Your task to perform on an android device: Search for the new Steph Curry shoes on Nike.com Image 0: 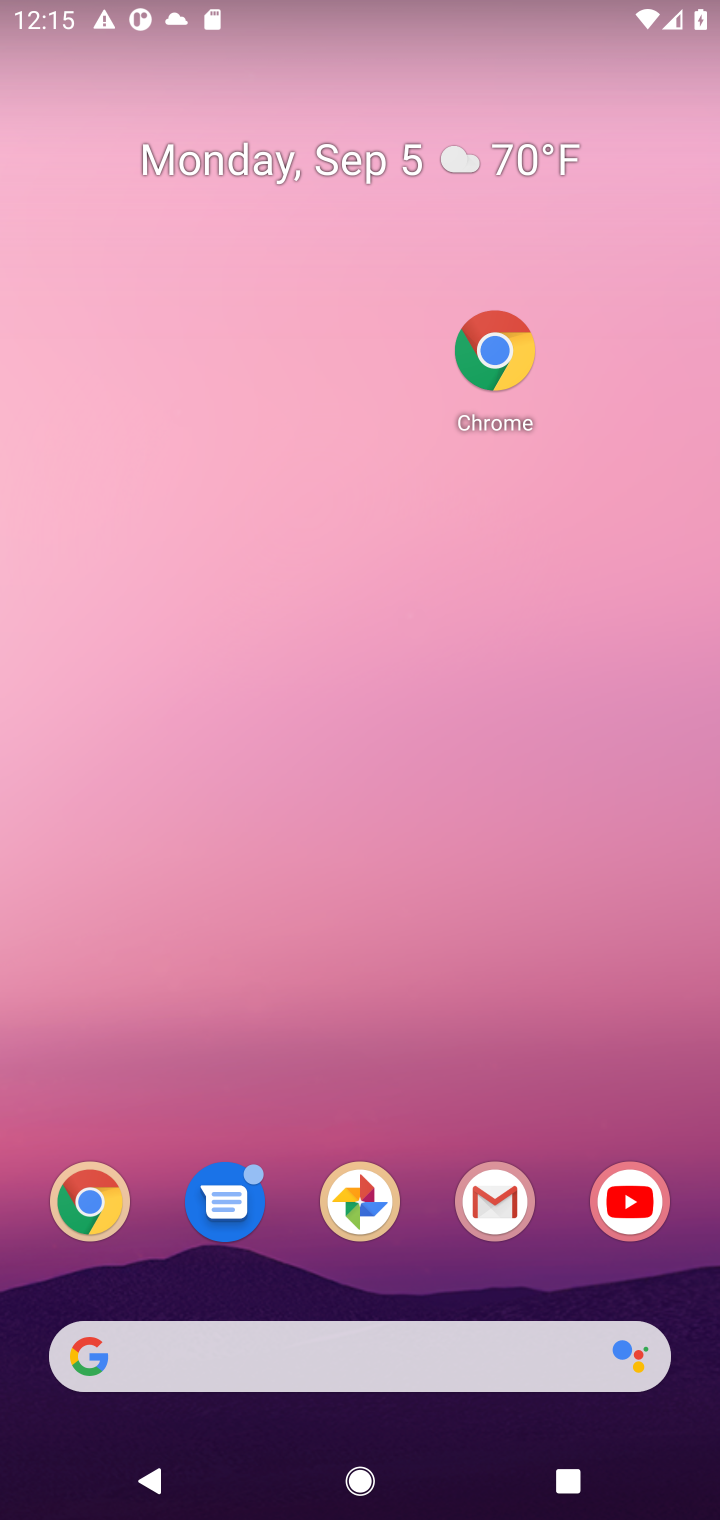
Step 0: drag from (421, 1002) to (449, 0)
Your task to perform on an android device: Search for the new Steph Curry shoes on Nike.com Image 1: 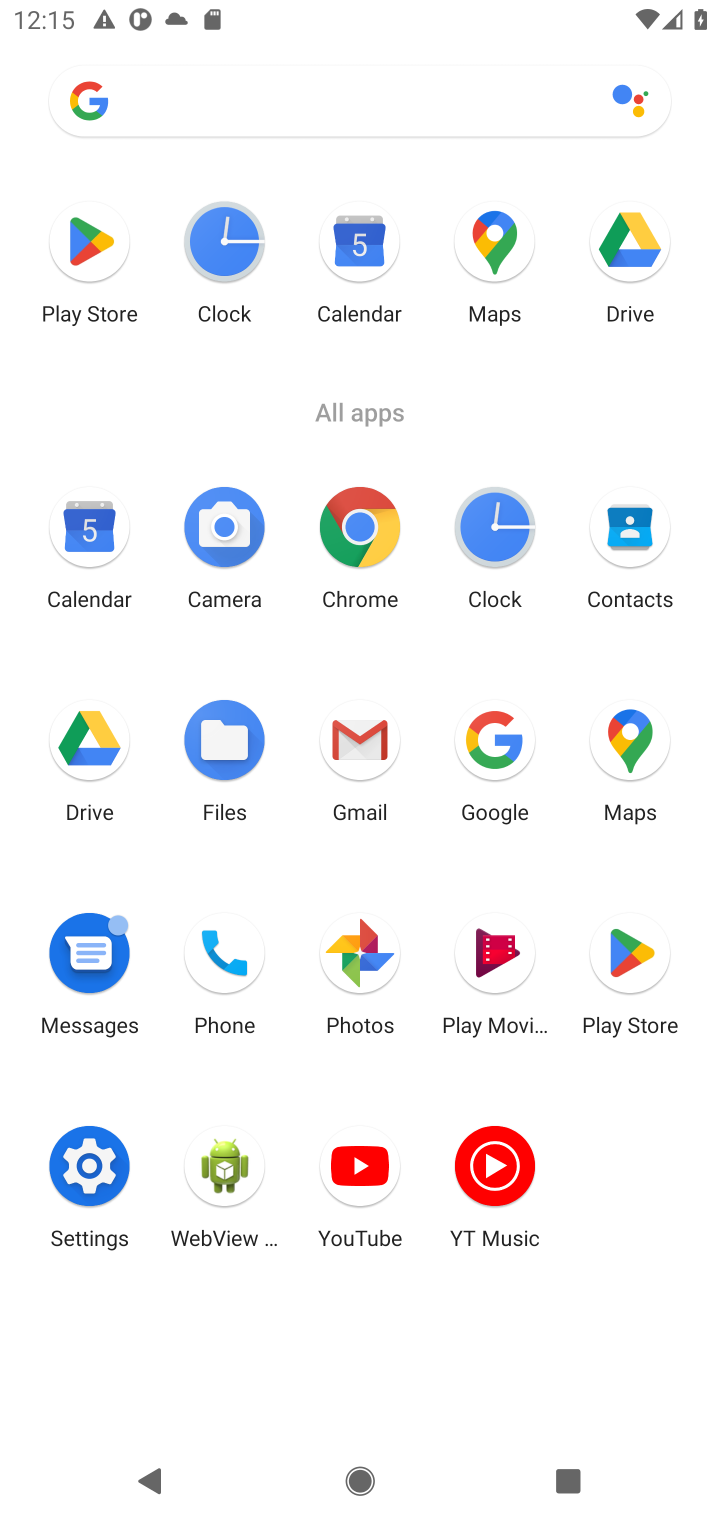
Step 1: click (356, 534)
Your task to perform on an android device: Search for the new Steph Curry shoes on Nike.com Image 2: 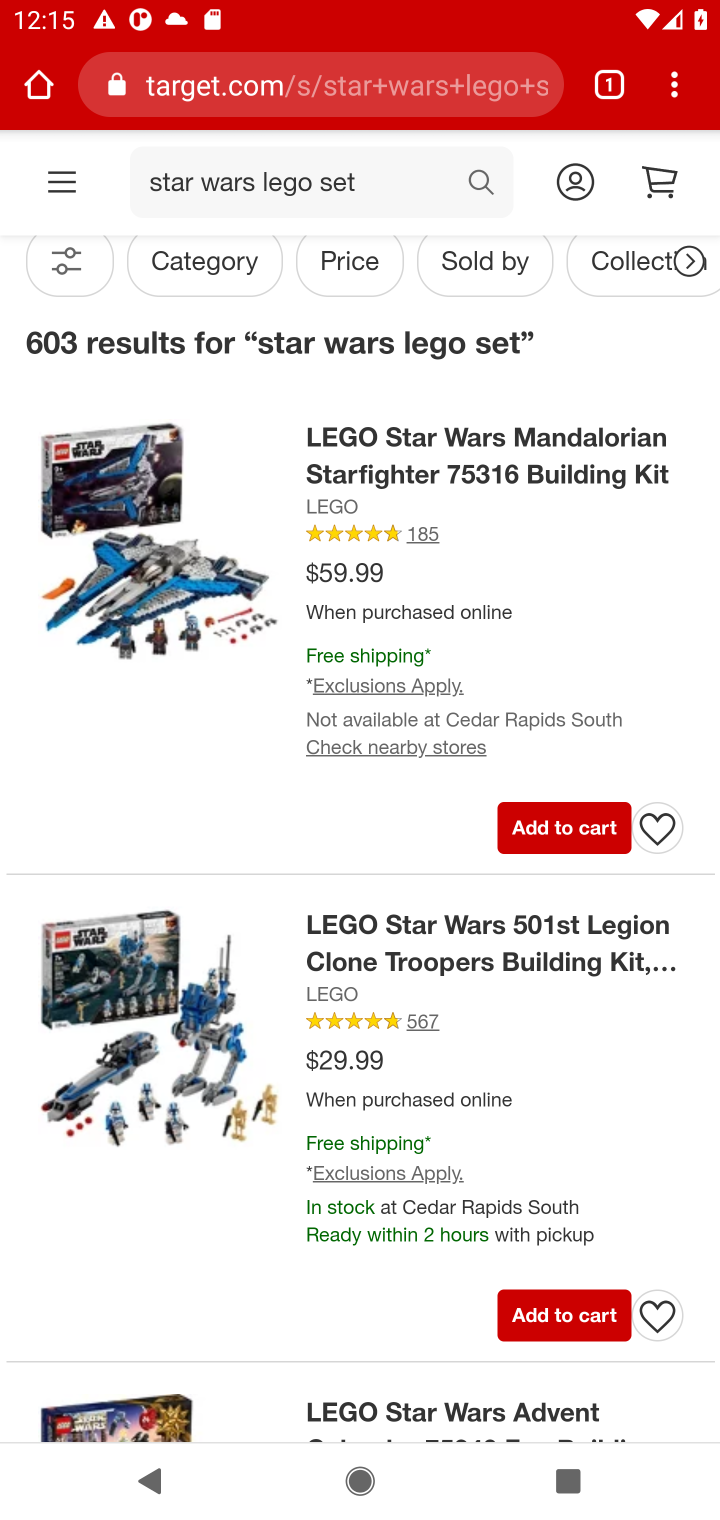
Step 2: click (377, 83)
Your task to perform on an android device: Search for the new Steph Curry shoes on Nike.com Image 3: 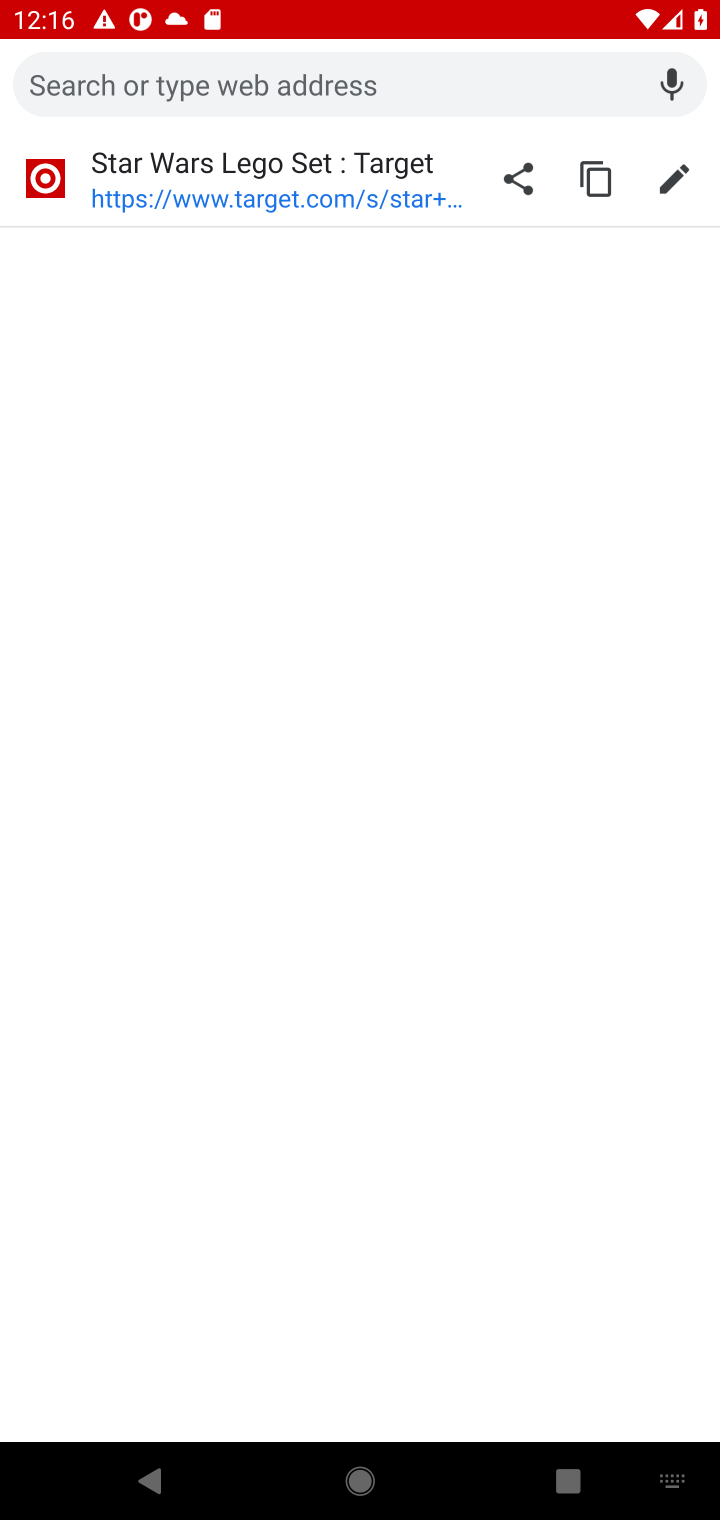
Step 3: type "new Steph Curry shoes on Nike.com"
Your task to perform on an android device: Search for the new Steph Curry shoes on Nike.com Image 4: 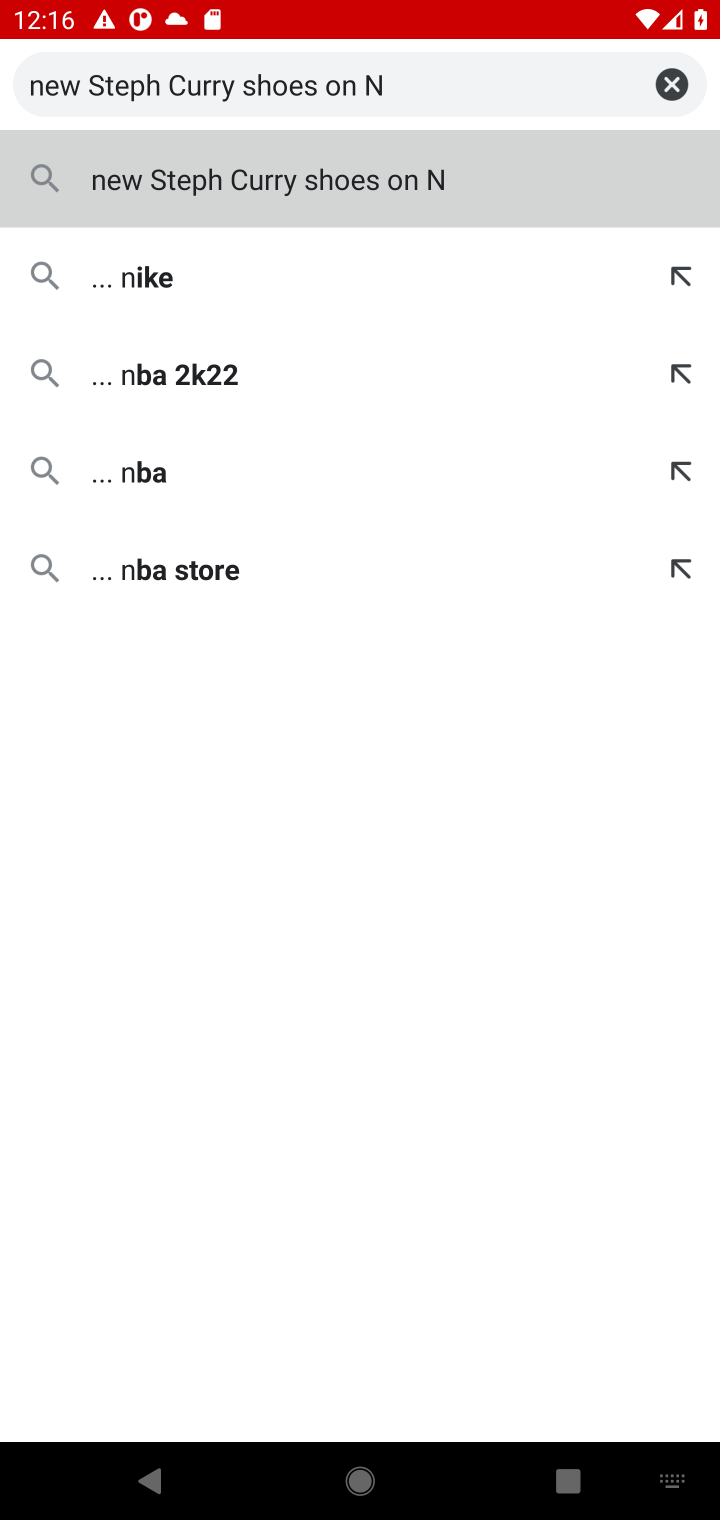
Step 4: type "ike.com"
Your task to perform on an android device: Search for the new Steph Curry shoes on Nike.com Image 5: 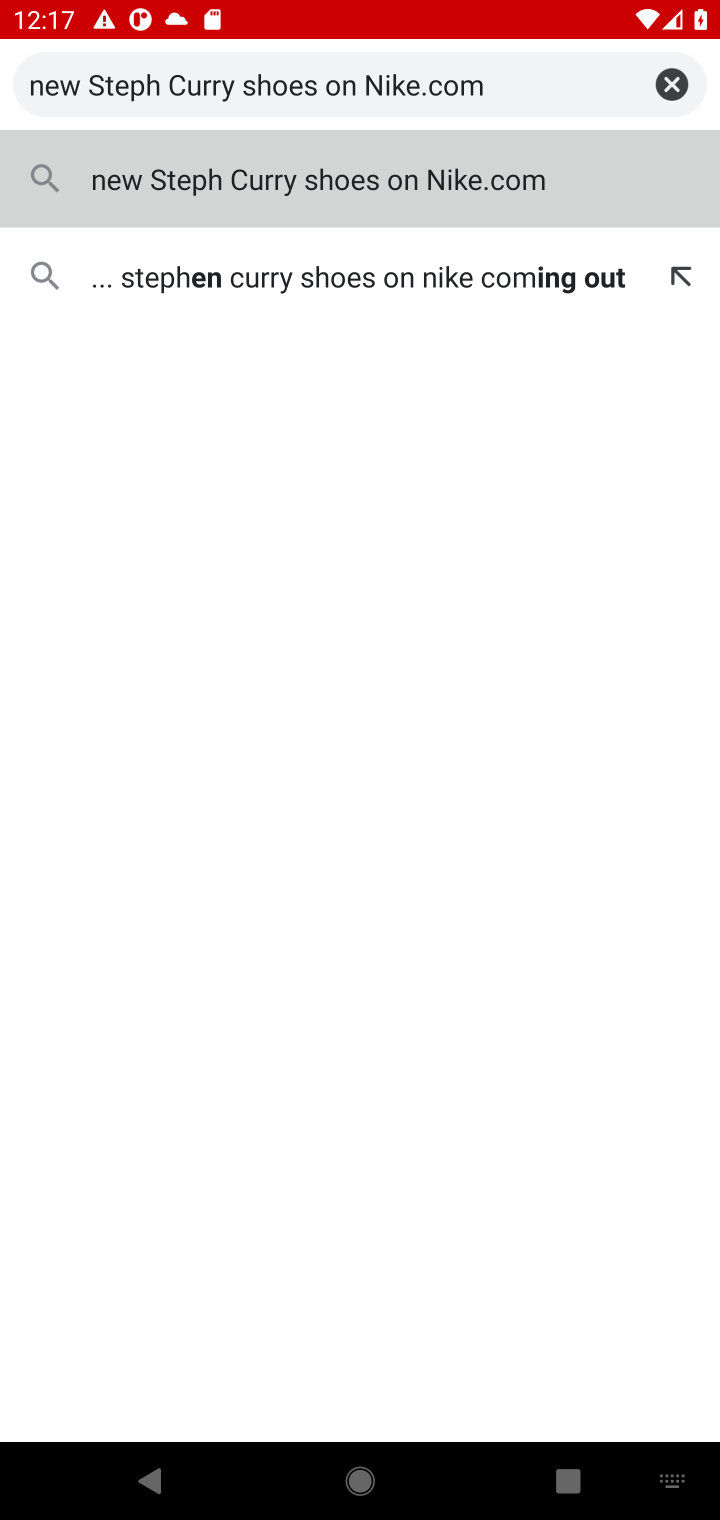
Step 5: press enter
Your task to perform on an android device: Search for the new Steph Curry shoes on Nike.com Image 6: 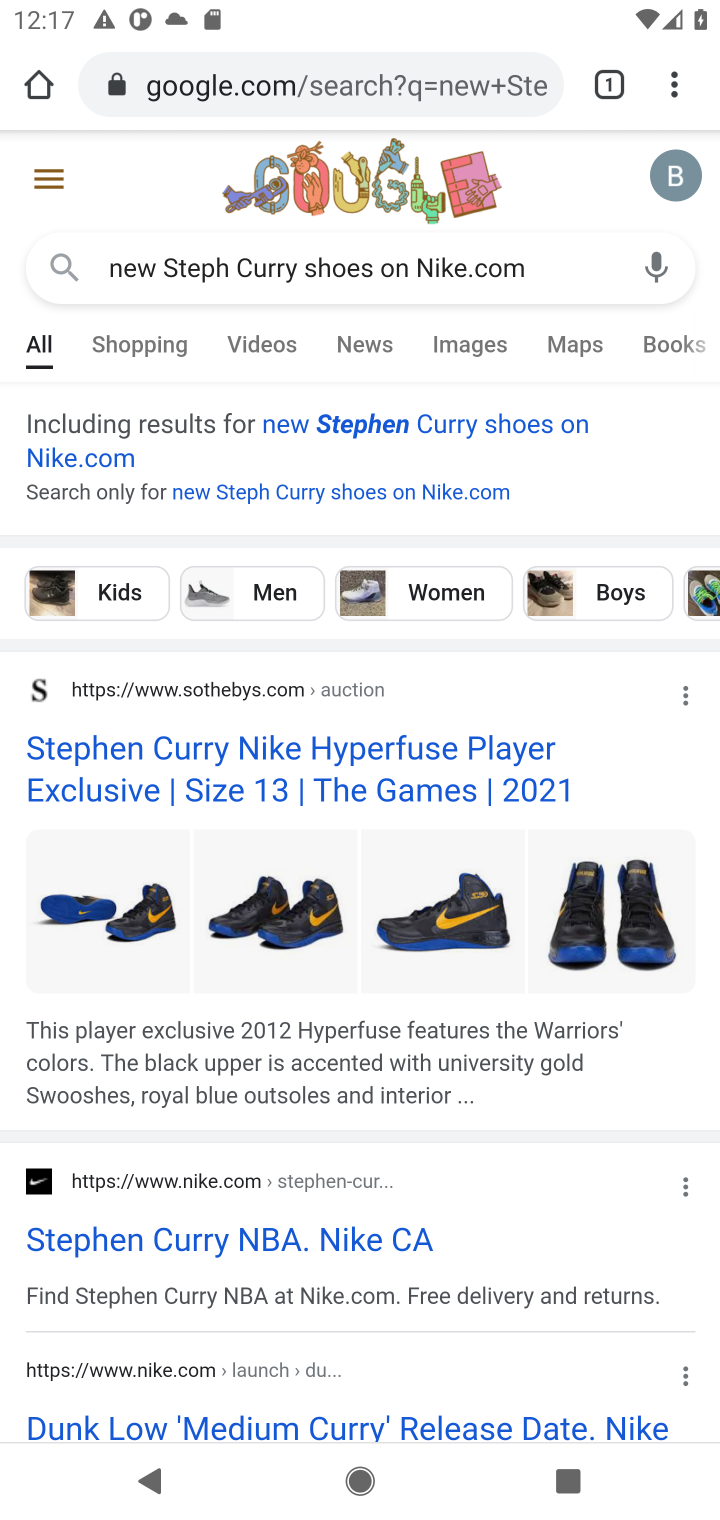
Step 6: click (345, 769)
Your task to perform on an android device: Search for the new Steph Curry shoes on Nike.com Image 7: 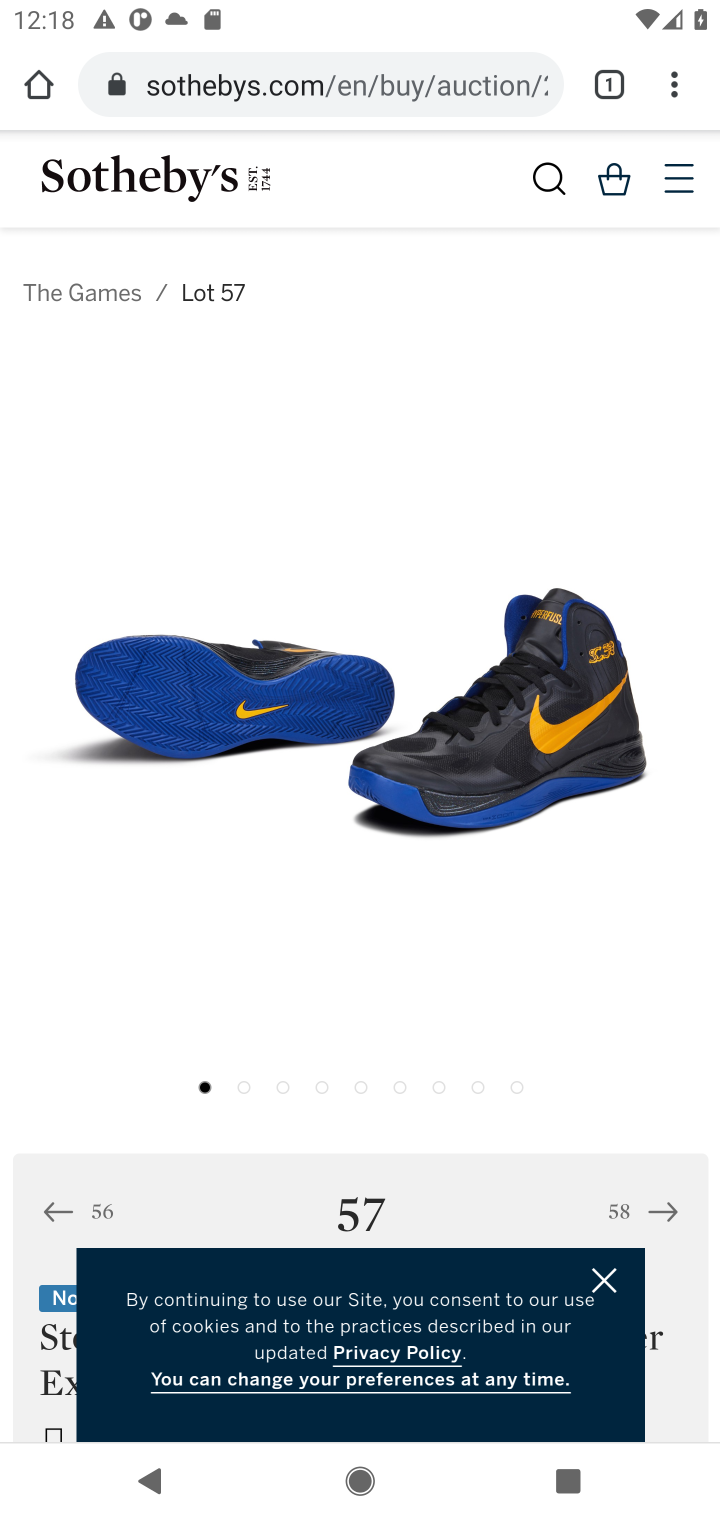
Step 7: drag from (307, 776) to (362, 416)
Your task to perform on an android device: Search for the new Steph Curry shoes on Nike.com Image 8: 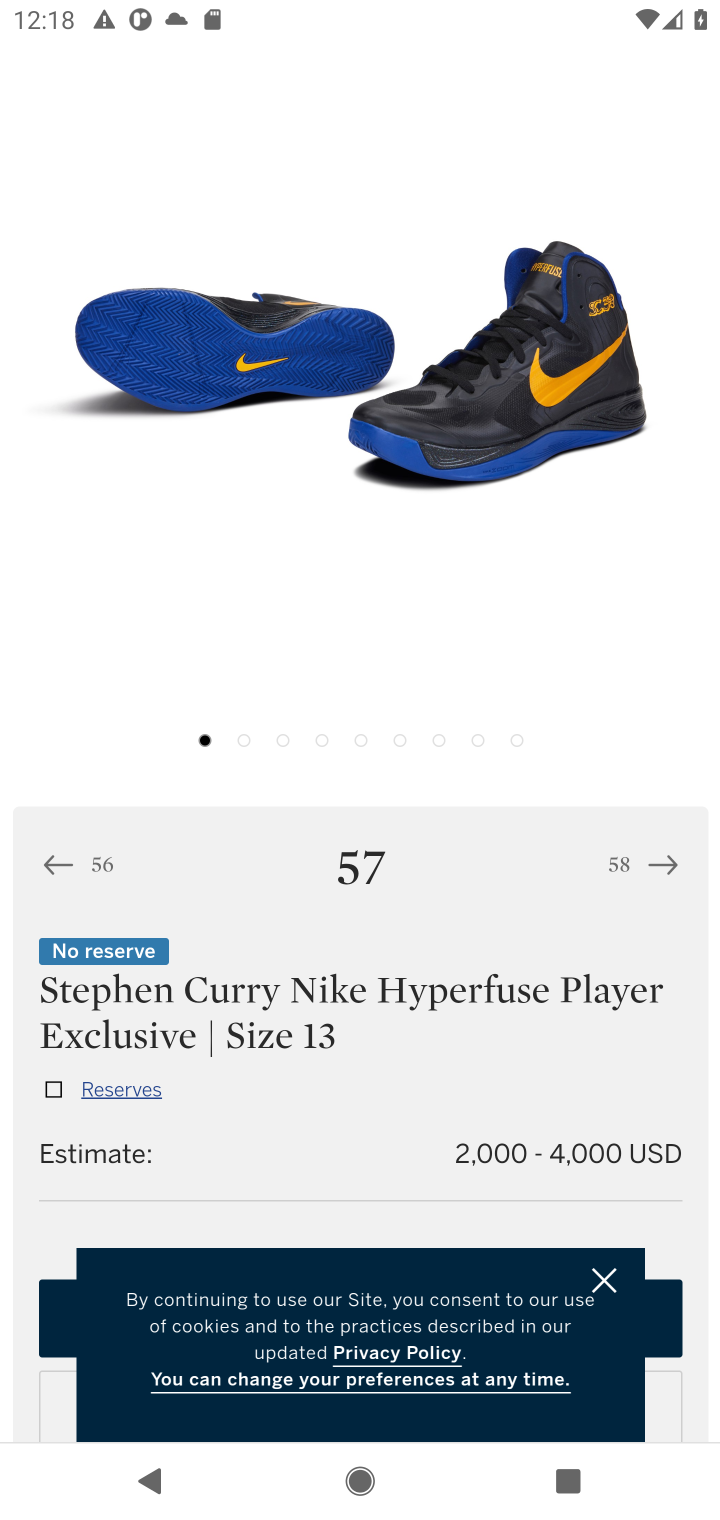
Step 8: click (528, 264)
Your task to perform on an android device: Search for the new Steph Curry shoes on Nike.com Image 9: 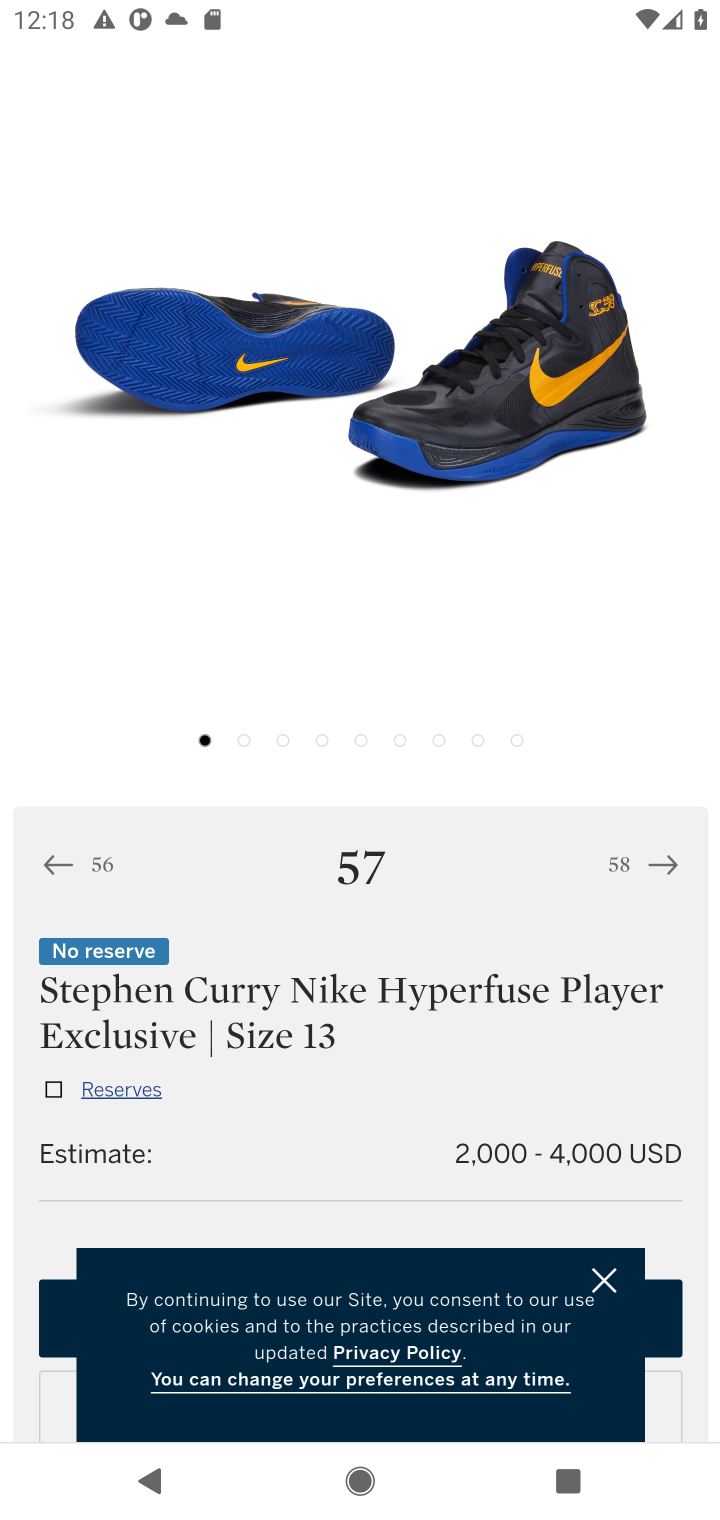
Step 9: task complete